Your task to perform on an android device: Go to Google maps Image 0: 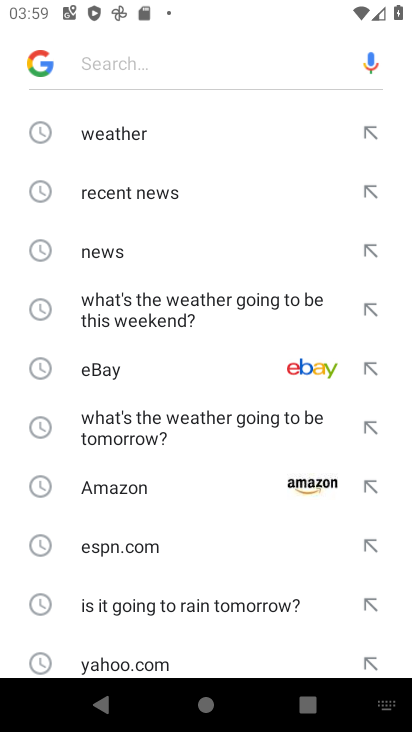
Step 0: press home button
Your task to perform on an android device: Go to Google maps Image 1: 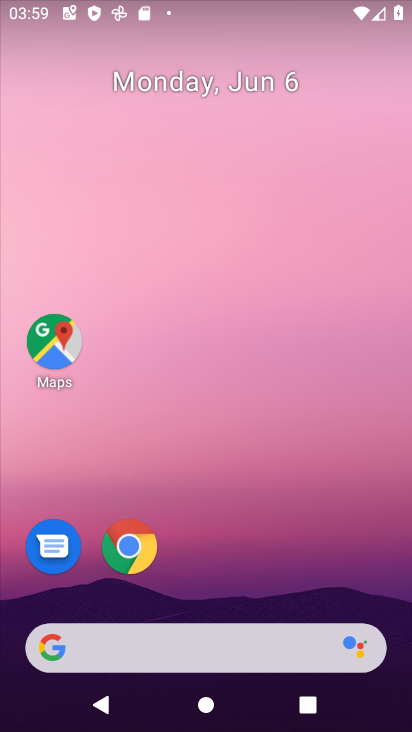
Step 1: click (273, 546)
Your task to perform on an android device: Go to Google maps Image 2: 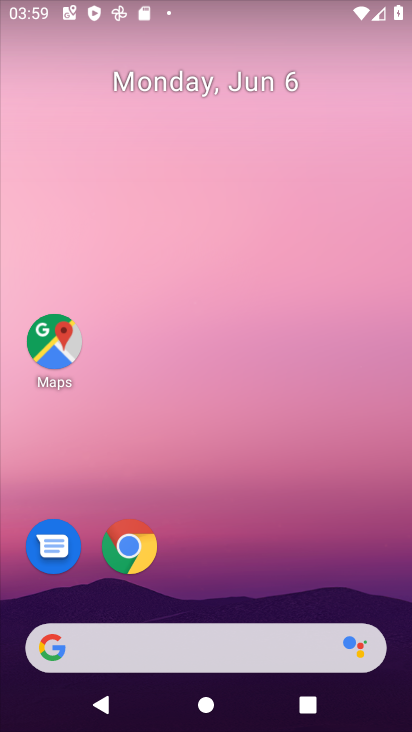
Step 2: drag from (273, 546) to (223, 188)
Your task to perform on an android device: Go to Google maps Image 3: 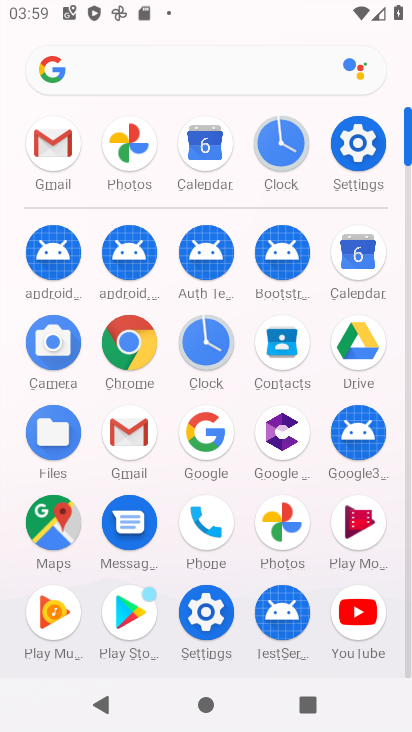
Step 3: click (55, 544)
Your task to perform on an android device: Go to Google maps Image 4: 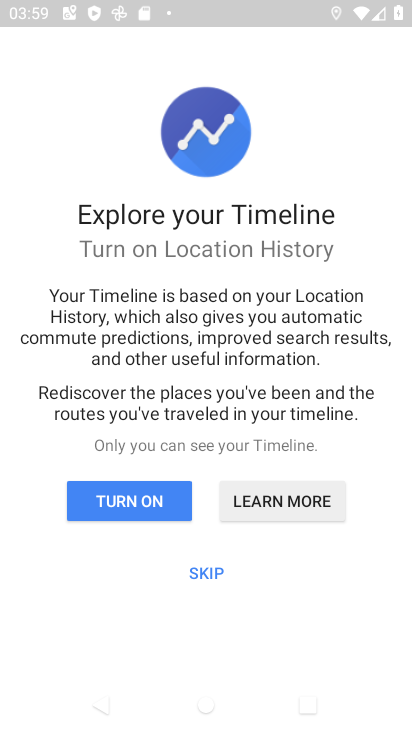
Step 4: click (213, 576)
Your task to perform on an android device: Go to Google maps Image 5: 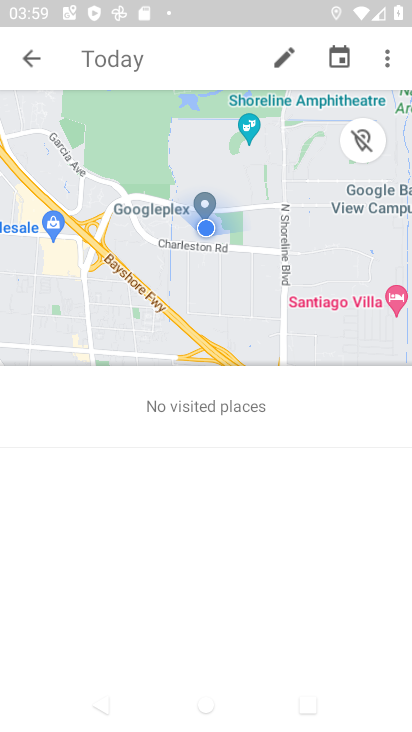
Step 5: task complete